Your task to perform on an android device: find photos in the google photos app Image 0: 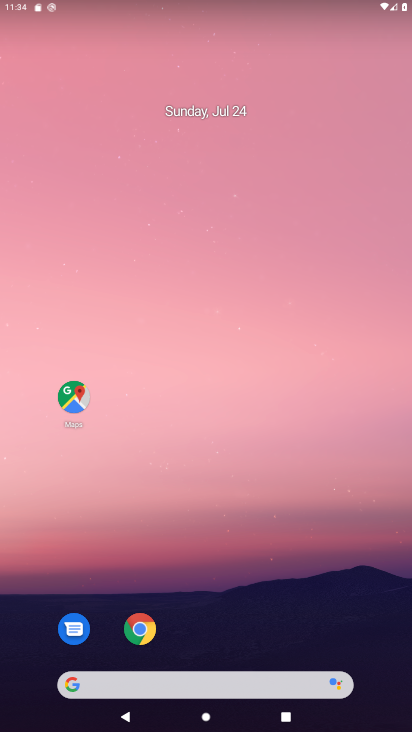
Step 0: drag from (226, 637) to (252, 16)
Your task to perform on an android device: find photos in the google photos app Image 1: 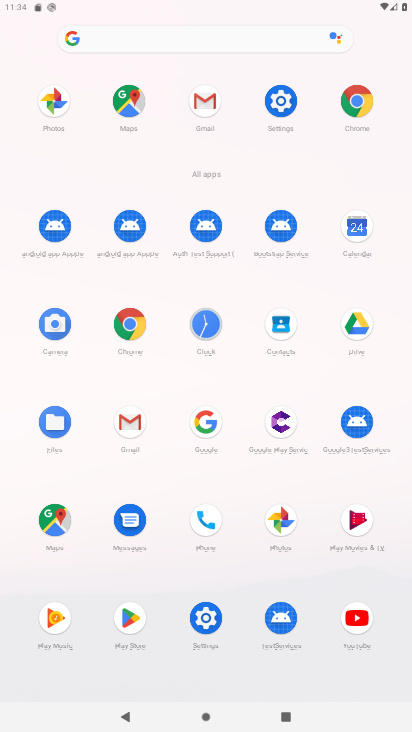
Step 1: click (284, 536)
Your task to perform on an android device: find photos in the google photos app Image 2: 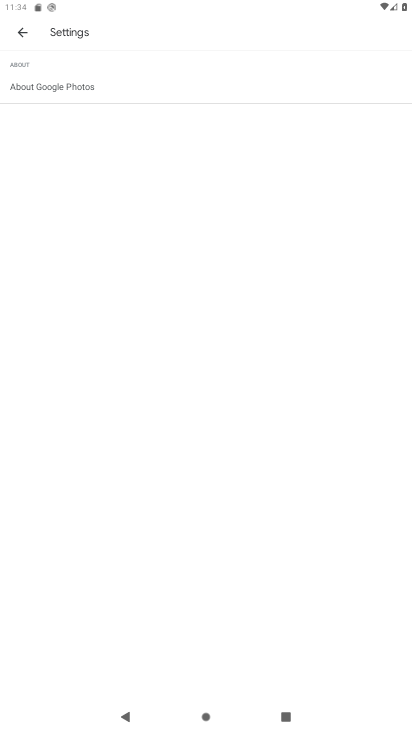
Step 2: click (26, 22)
Your task to perform on an android device: find photos in the google photos app Image 3: 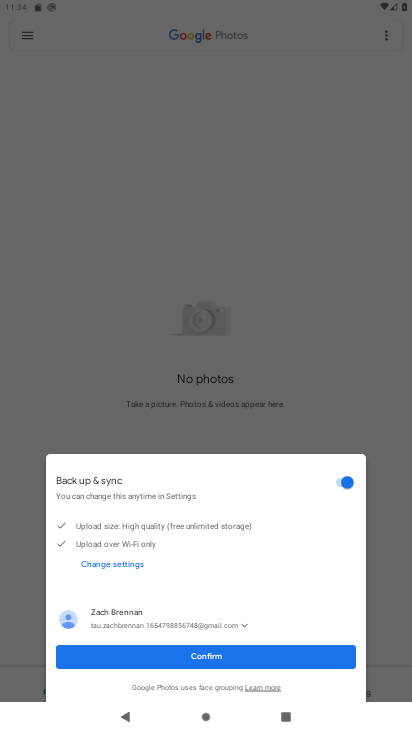
Step 3: click (254, 660)
Your task to perform on an android device: find photos in the google photos app Image 4: 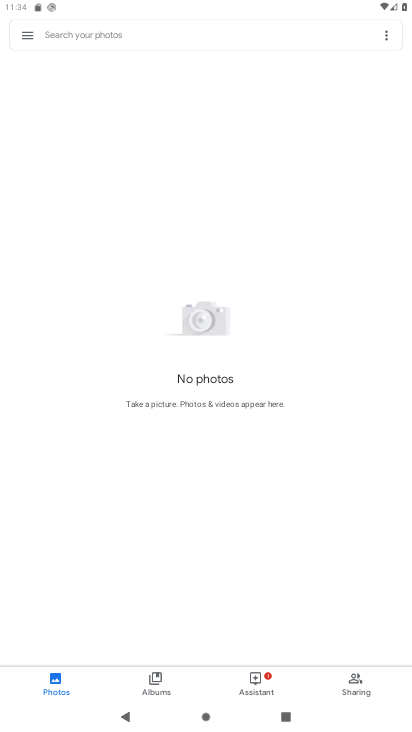
Step 4: task complete